Your task to perform on an android device: turn on notifications settings in the gmail app Image 0: 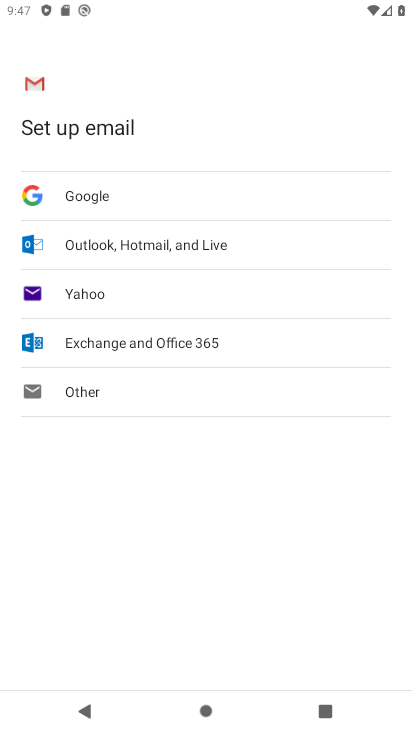
Step 0: click (50, 378)
Your task to perform on an android device: turn on notifications settings in the gmail app Image 1: 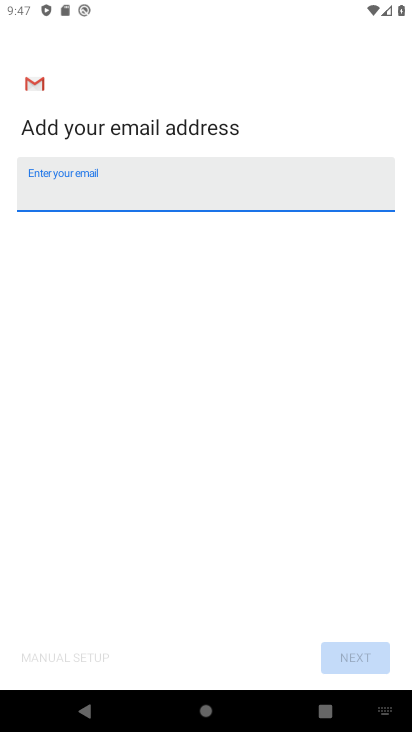
Step 1: press home button
Your task to perform on an android device: turn on notifications settings in the gmail app Image 2: 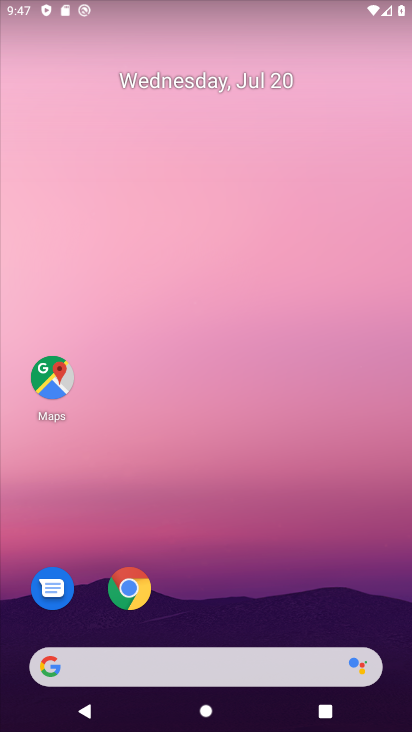
Step 2: drag from (381, 621) to (344, 143)
Your task to perform on an android device: turn on notifications settings in the gmail app Image 3: 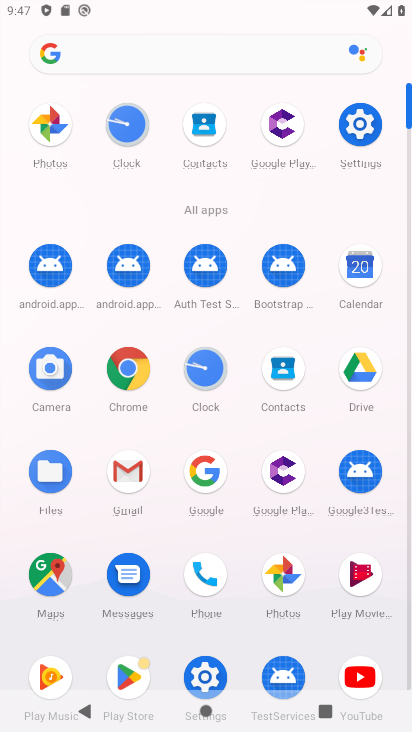
Step 3: click (124, 470)
Your task to perform on an android device: turn on notifications settings in the gmail app Image 4: 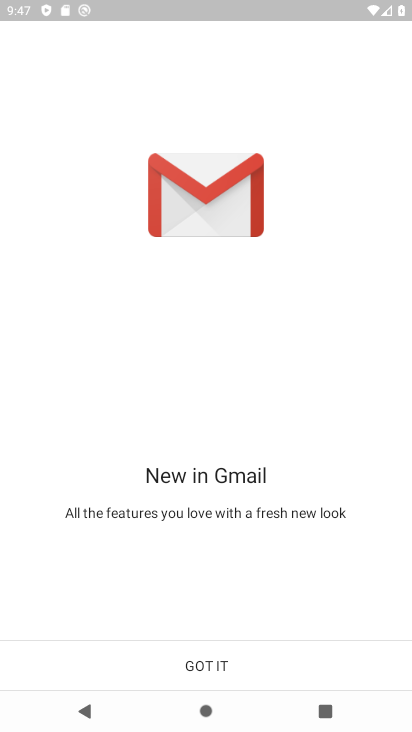
Step 4: click (204, 670)
Your task to perform on an android device: turn on notifications settings in the gmail app Image 5: 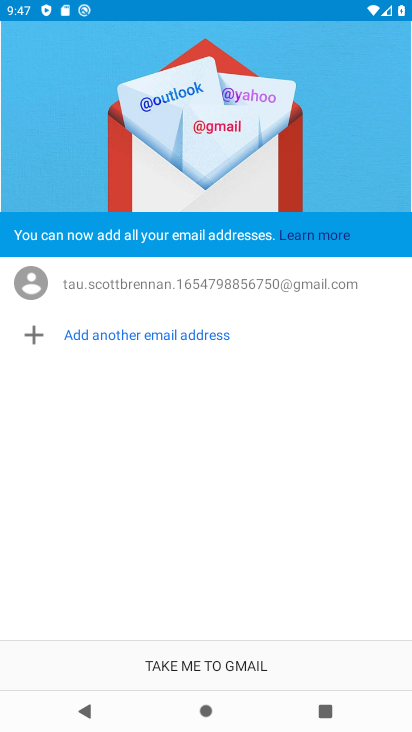
Step 5: click (205, 668)
Your task to perform on an android device: turn on notifications settings in the gmail app Image 6: 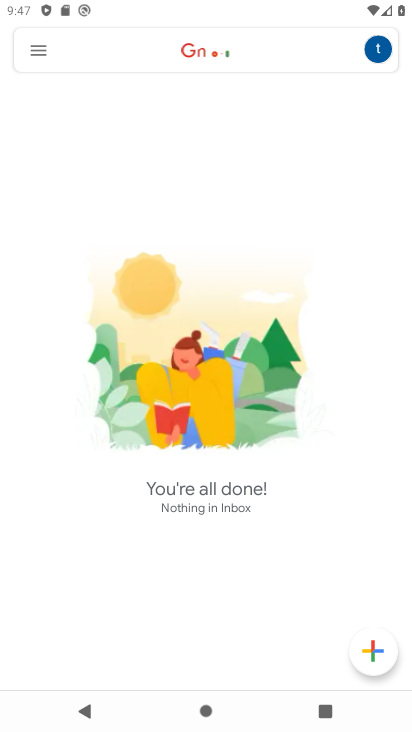
Step 6: click (34, 47)
Your task to perform on an android device: turn on notifications settings in the gmail app Image 7: 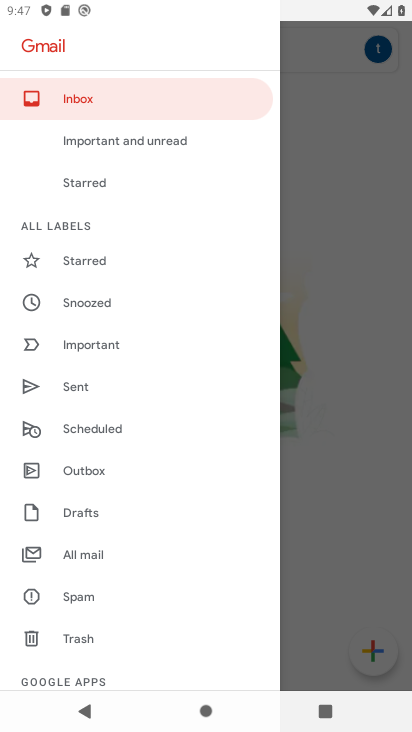
Step 7: drag from (137, 577) to (123, 184)
Your task to perform on an android device: turn on notifications settings in the gmail app Image 8: 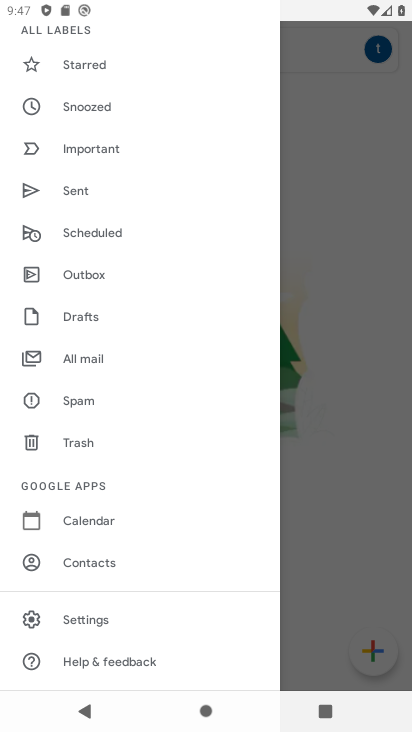
Step 8: click (81, 618)
Your task to perform on an android device: turn on notifications settings in the gmail app Image 9: 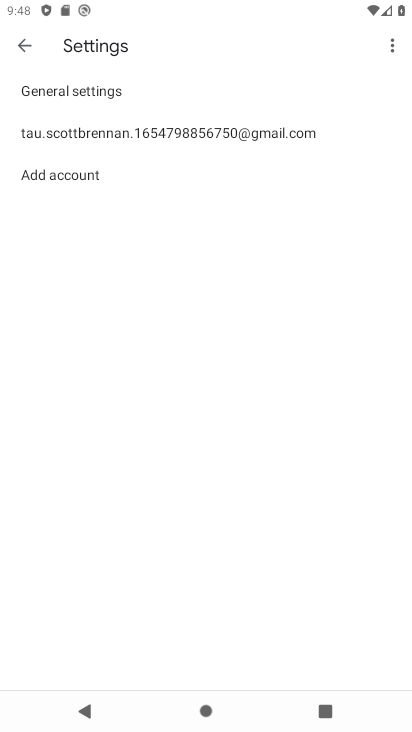
Step 9: click (109, 131)
Your task to perform on an android device: turn on notifications settings in the gmail app Image 10: 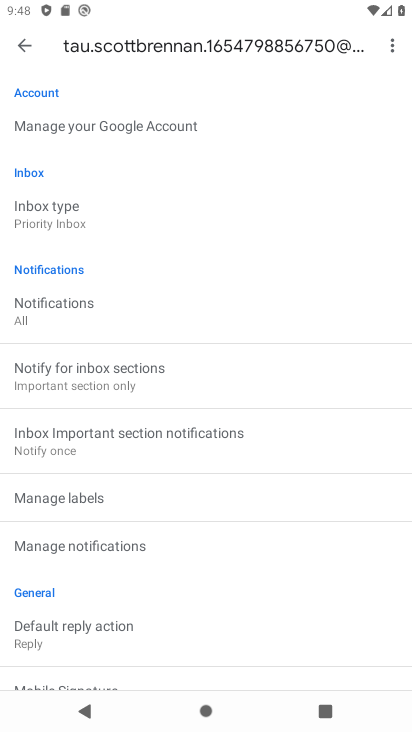
Step 10: click (74, 546)
Your task to perform on an android device: turn on notifications settings in the gmail app Image 11: 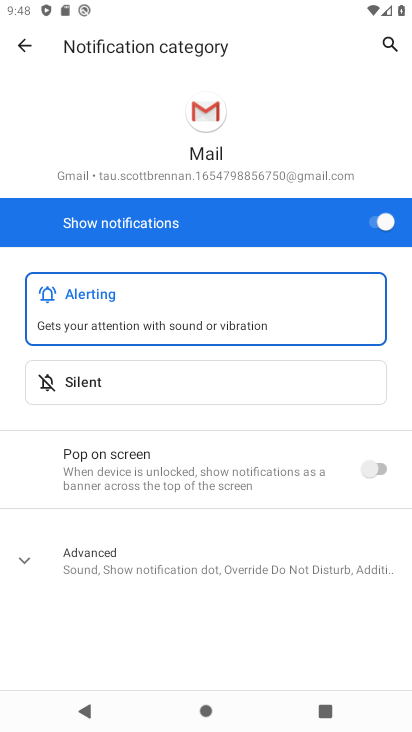
Step 11: task complete